Your task to perform on an android device: turn on wifi Image 0: 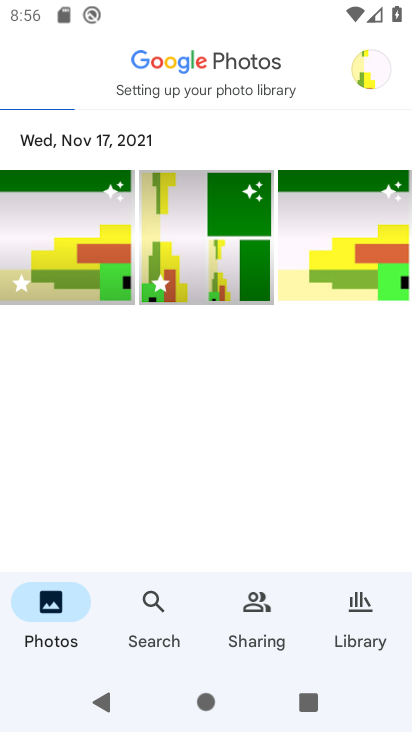
Step 0: press home button
Your task to perform on an android device: turn on wifi Image 1: 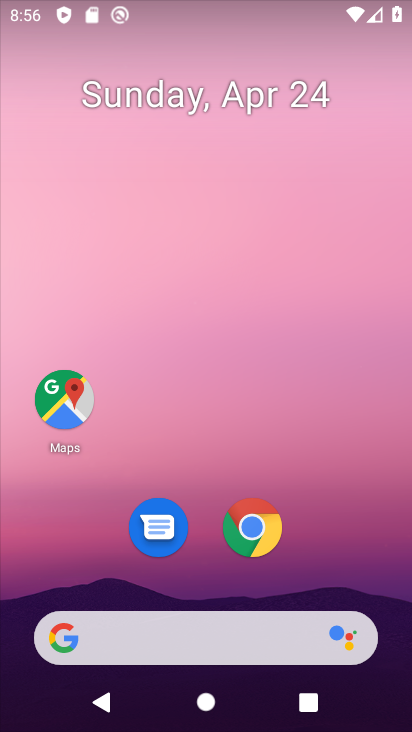
Step 1: task complete